Your task to perform on an android device: Open battery settings Image 0: 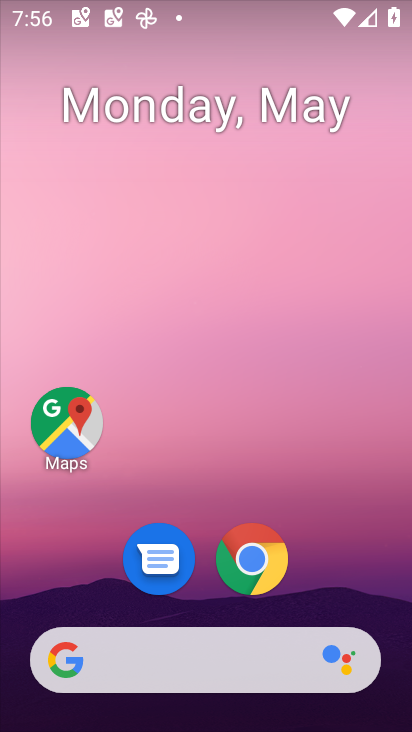
Step 0: drag from (393, 653) to (262, 41)
Your task to perform on an android device: Open battery settings Image 1: 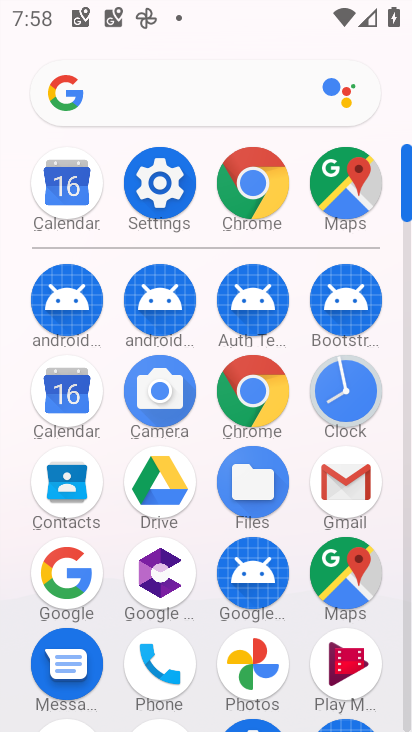
Step 1: click (163, 162)
Your task to perform on an android device: Open battery settings Image 2: 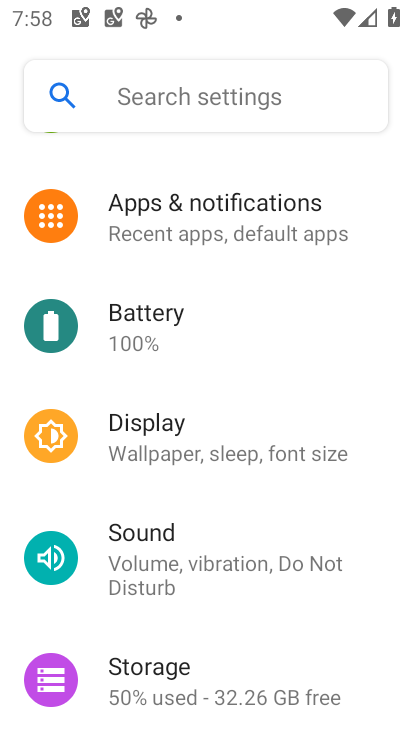
Step 2: click (201, 338)
Your task to perform on an android device: Open battery settings Image 3: 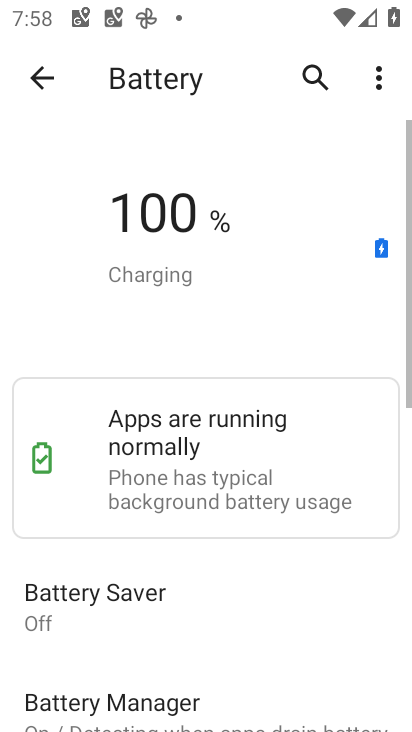
Step 3: task complete